Your task to perform on an android device: change the clock display to analog Image 0: 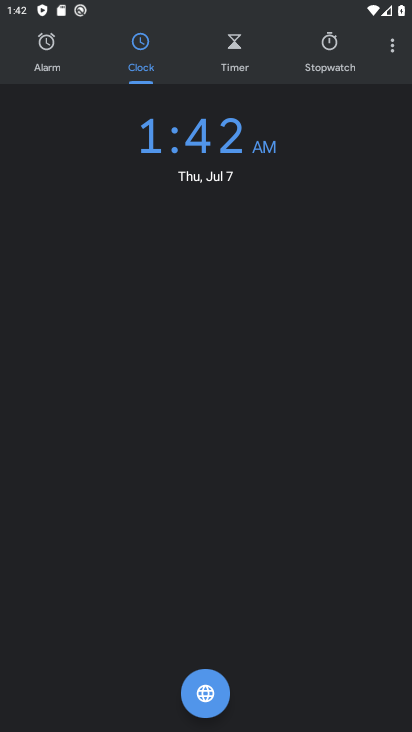
Step 0: press home button
Your task to perform on an android device: change the clock display to analog Image 1: 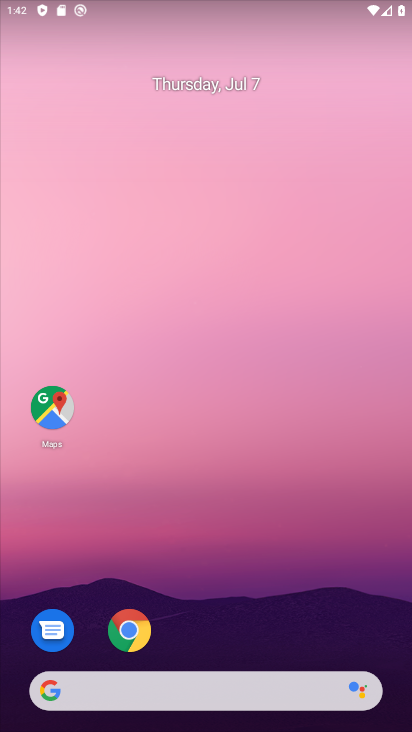
Step 1: drag from (222, 685) to (156, 157)
Your task to perform on an android device: change the clock display to analog Image 2: 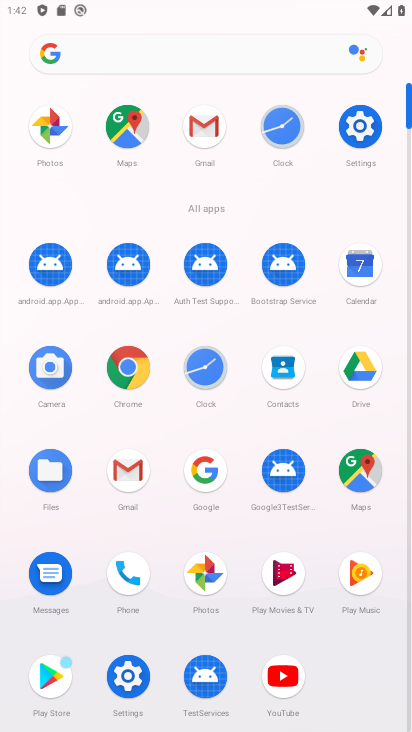
Step 2: click (200, 357)
Your task to perform on an android device: change the clock display to analog Image 3: 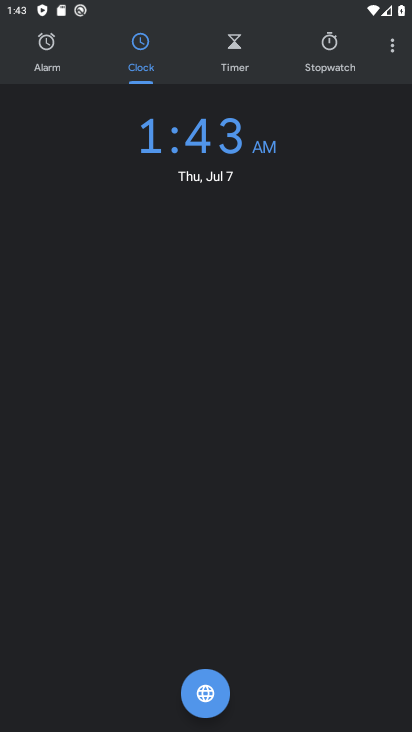
Step 3: click (392, 48)
Your task to perform on an android device: change the clock display to analog Image 4: 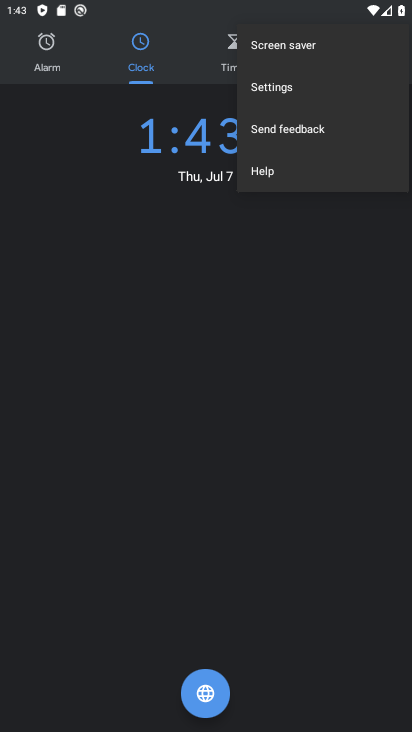
Step 4: click (266, 93)
Your task to perform on an android device: change the clock display to analog Image 5: 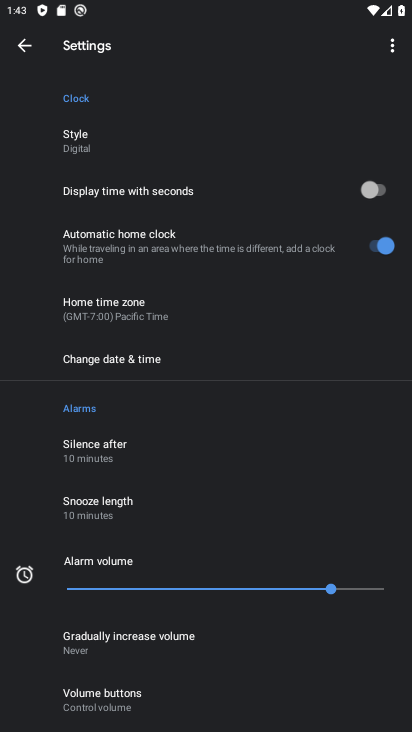
Step 5: click (81, 146)
Your task to perform on an android device: change the clock display to analog Image 6: 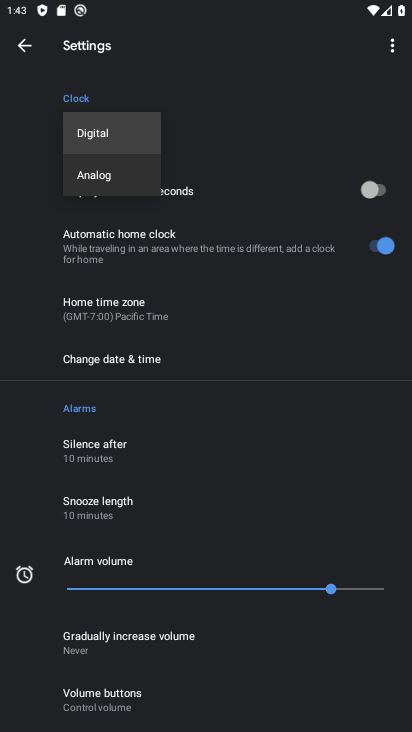
Step 6: click (121, 182)
Your task to perform on an android device: change the clock display to analog Image 7: 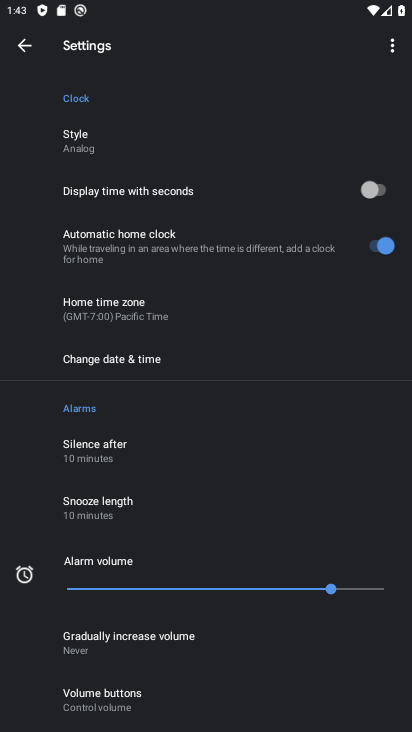
Step 7: task complete